Your task to perform on an android device: Show me productivity apps on the Play Store Image 0: 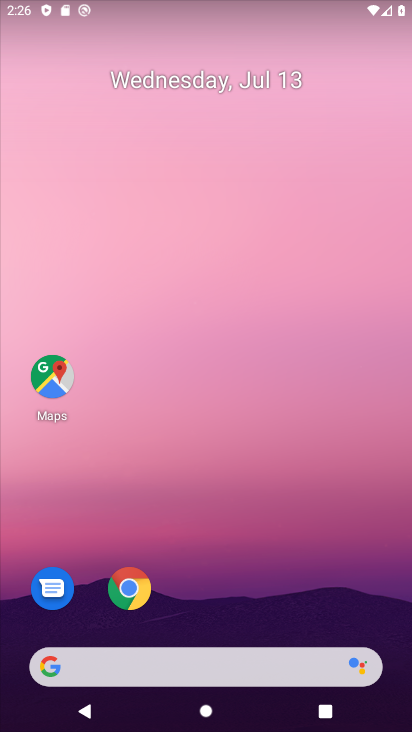
Step 0: drag from (251, 566) to (251, 363)
Your task to perform on an android device: Show me productivity apps on the Play Store Image 1: 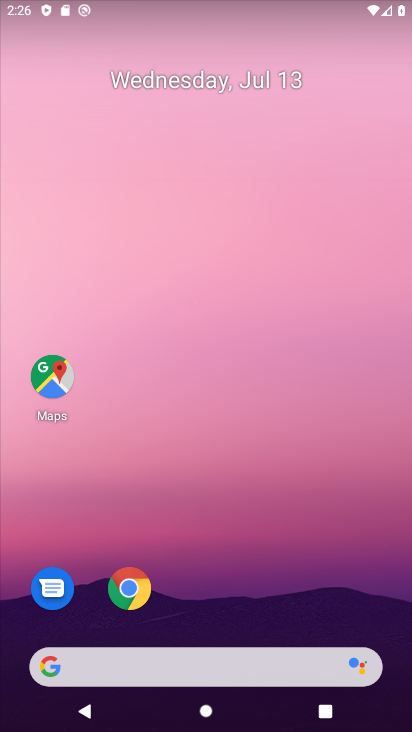
Step 1: drag from (312, 511) to (365, 243)
Your task to perform on an android device: Show me productivity apps on the Play Store Image 2: 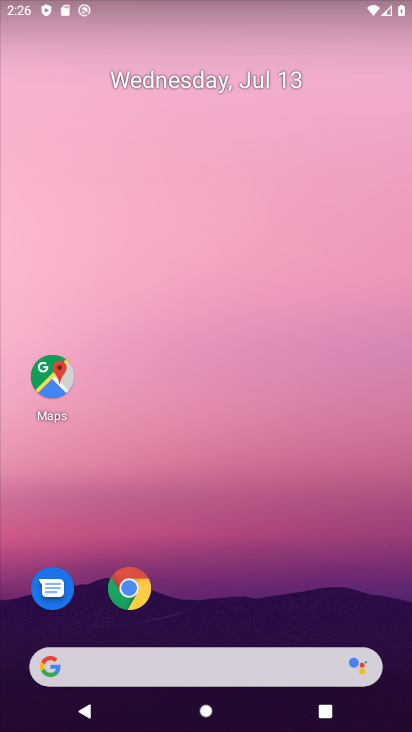
Step 2: drag from (239, 415) to (250, 320)
Your task to perform on an android device: Show me productivity apps on the Play Store Image 3: 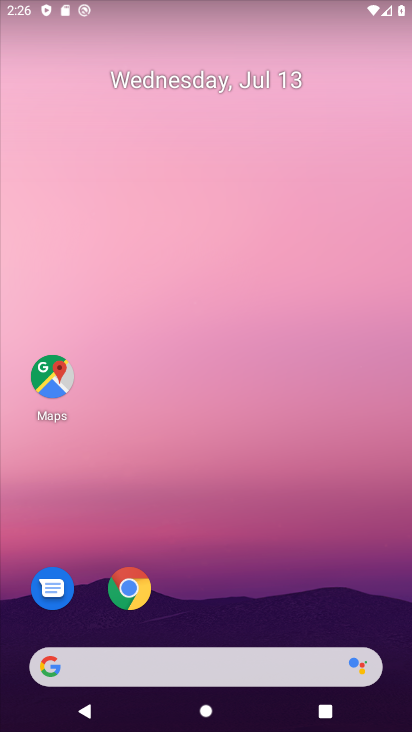
Step 3: drag from (295, 598) to (319, 40)
Your task to perform on an android device: Show me productivity apps on the Play Store Image 4: 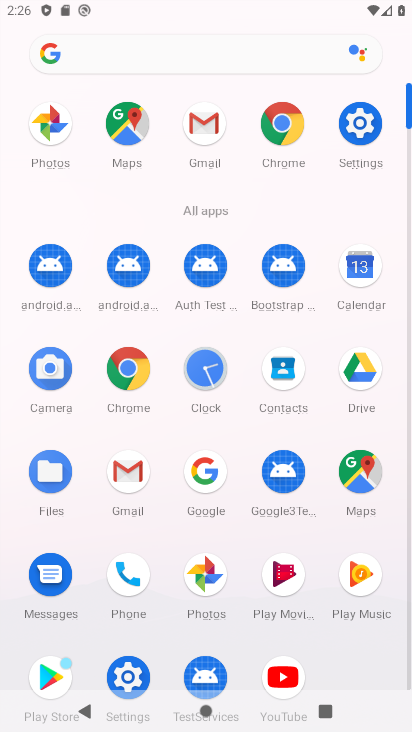
Step 4: click (53, 675)
Your task to perform on an android device: Show me productivity apps on the Play Store Image 5: 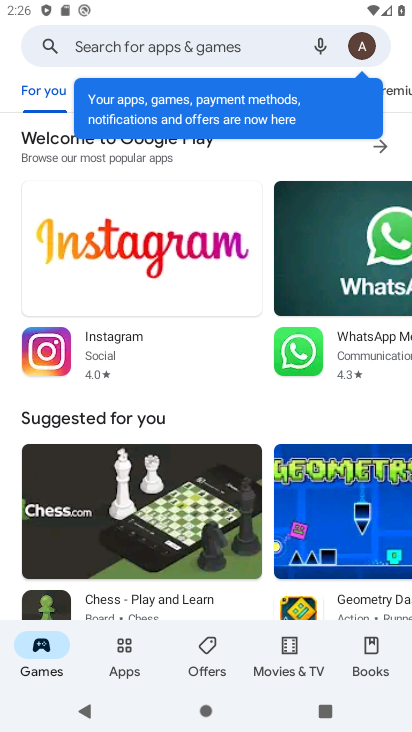
Step 5: click (116, 661)
Your task to perform on an android device: Show me productivity apps on the Play Store Image 6: 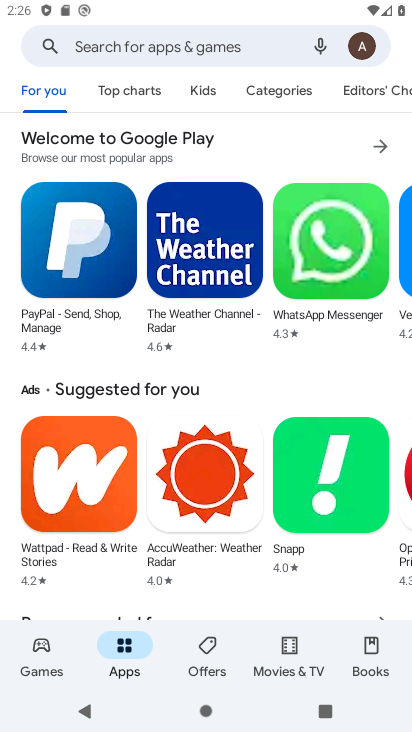
Step 6: click (286, 91)
Your task to perform on an android device: Show me productivity apps on the Play Store Image 7: 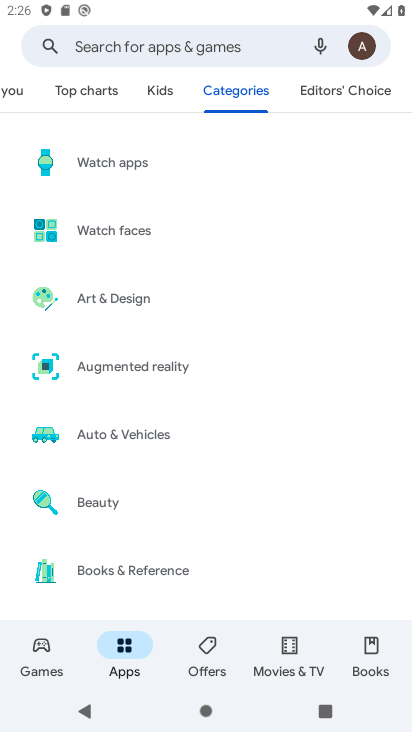
Step 7: drag from (70, 583) to (70, 76)
Your task to perform on an android device: Show me productivity apps on the Play Store Image 8: 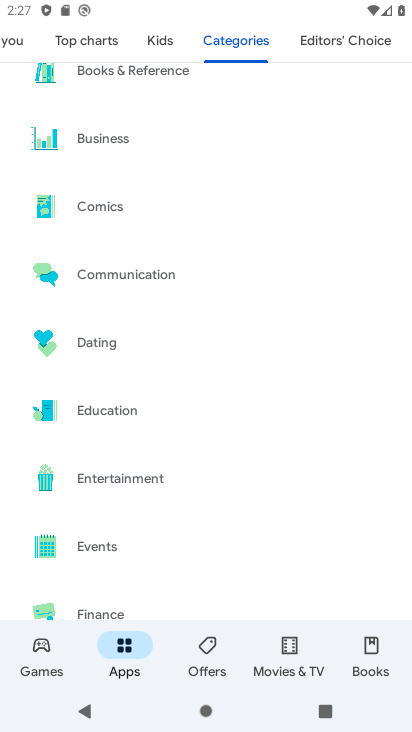
Step 8: drag from (107, 471) to (118, 113)
Your task to perform on an android device: Show me productivity apps on the Play Store Image 9: 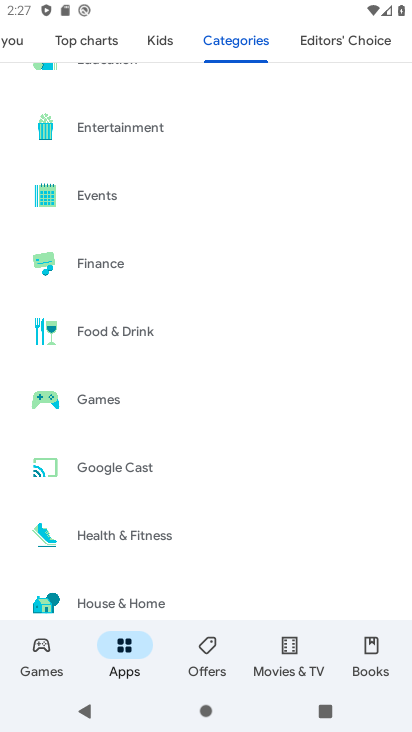
Step 9: drag from (148, 520) to (137, 119)
Your task to perform on an android device: Show me productivity apps on the Play Store Image 10: 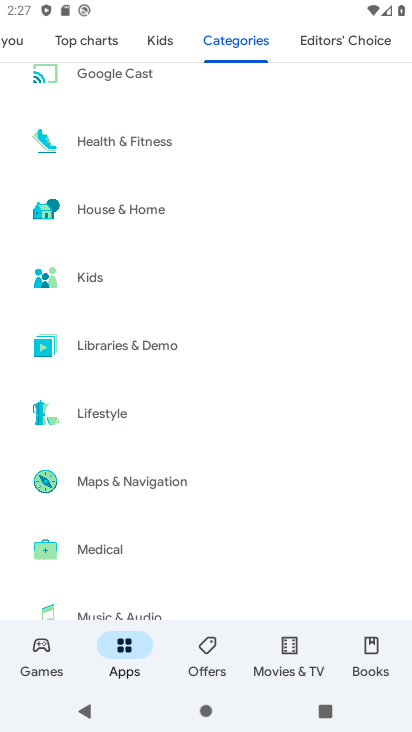
Step 10: drag from (164, 513) to (168, 281)
Your task to perform on an android device: Show me productivity apps on the Play Store Image 11: 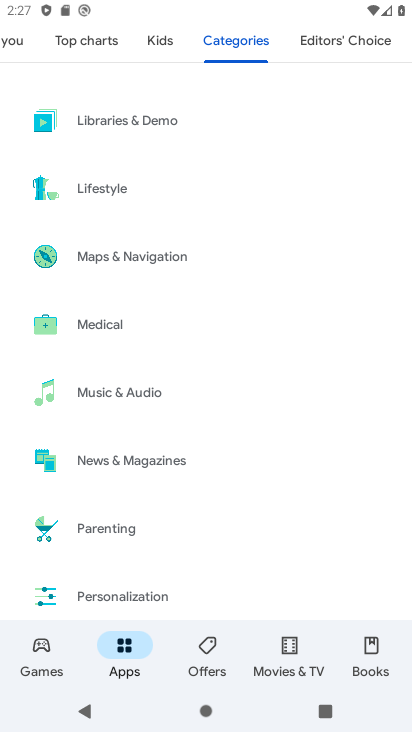
Step 11: drag from (161, 564) to (161, 381)
Your task to perform on an android device: Show me productivity apps on the Play Store Image 12: 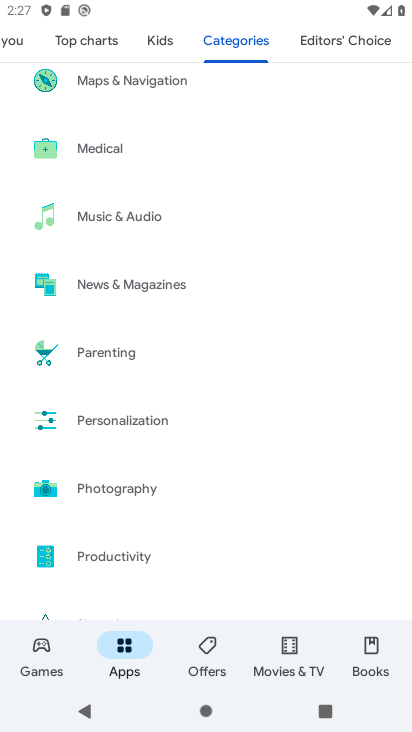
Step 12: click (166, 551)
Your task to perform on an android device: Show me productivity apps on the Play Store Image 13: 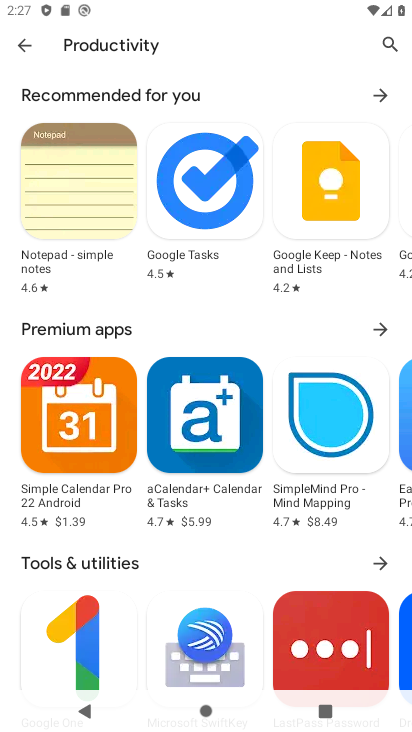
Step 13: task complete